Your task to perform on an android device: Open settings Image 0: 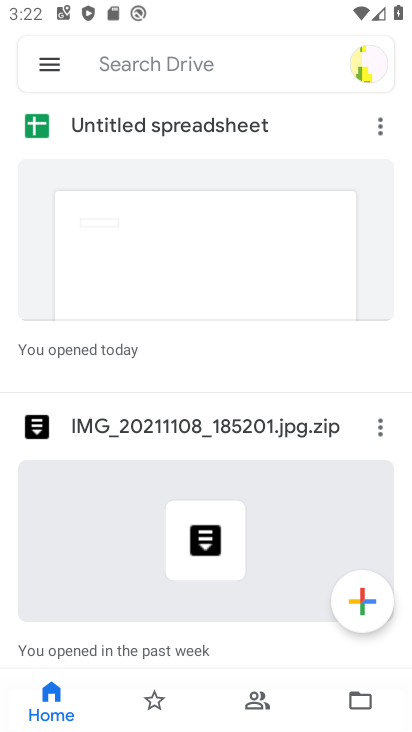
Step 0: press home button
Your task to perform on an android device: Open settings Image 1: 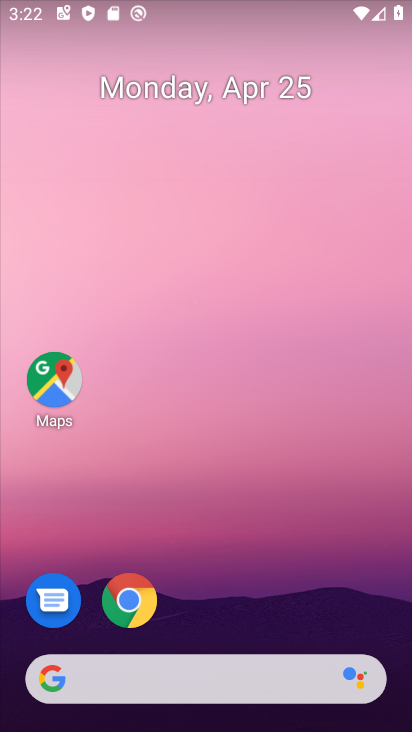
Step 1: drag from (372, 555) to (337, 45)
Your task to perform on an android device: Open settings Image 2: 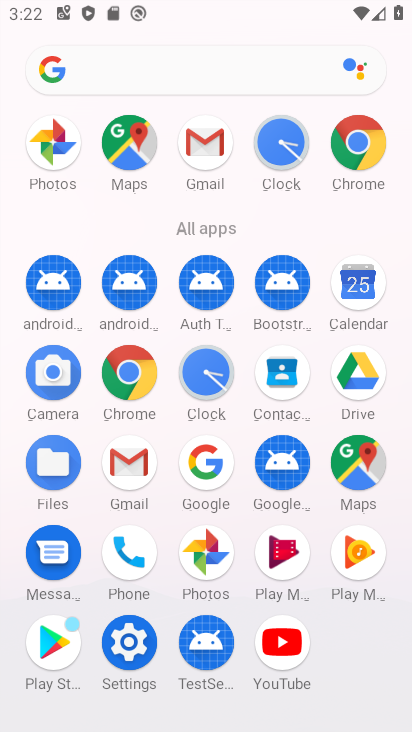
Step 2: drag from (408, 399) to (382, 149)
Your task to perform on an android device: Open settings Image 3: 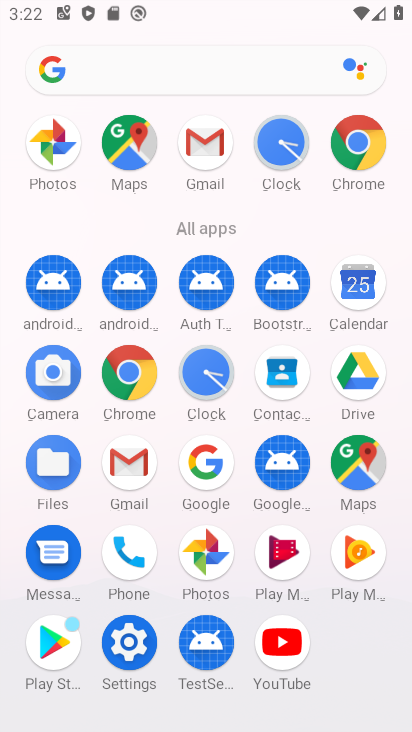
Step 3: click (125, 640)
Your task to perform on an android device: Open settings Image 4: 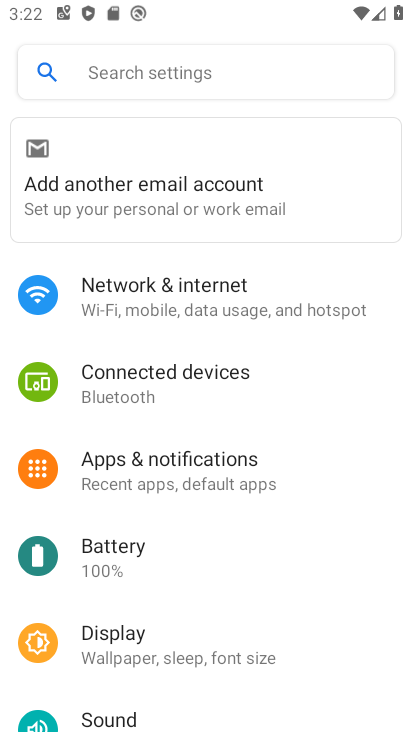
Step 4: task complete